Your task to perform on an android device: open a bookmark in the chrome app Image 0: 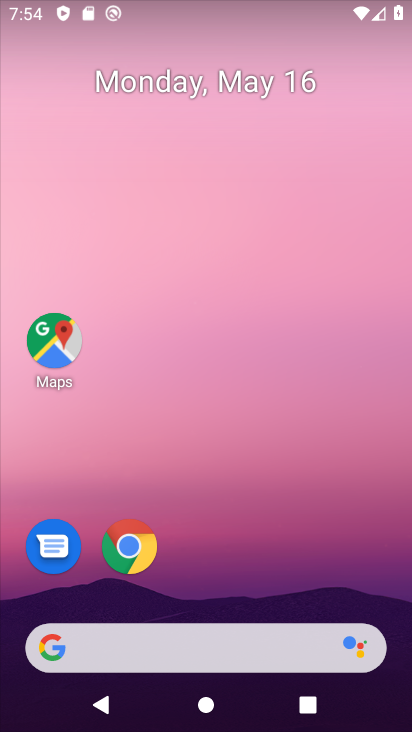
Step 0: click (160, 549)
Your task to perform on an android device: open a bookmark in the chrome app Image 1: 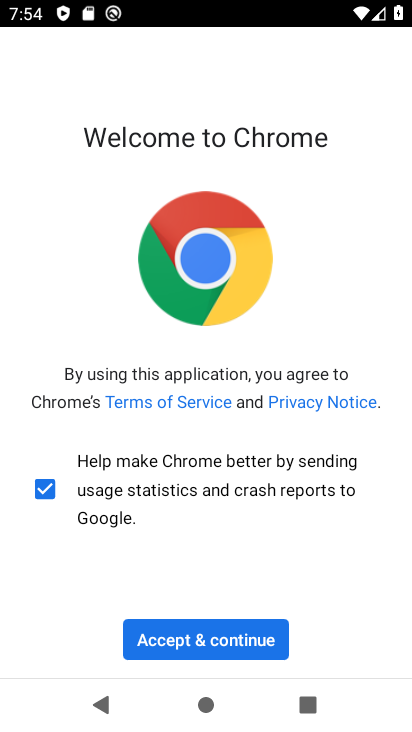
Step 1: click (234, 650)
Your task to perform on an android device: open a bookmark in the chrome app Image 2: 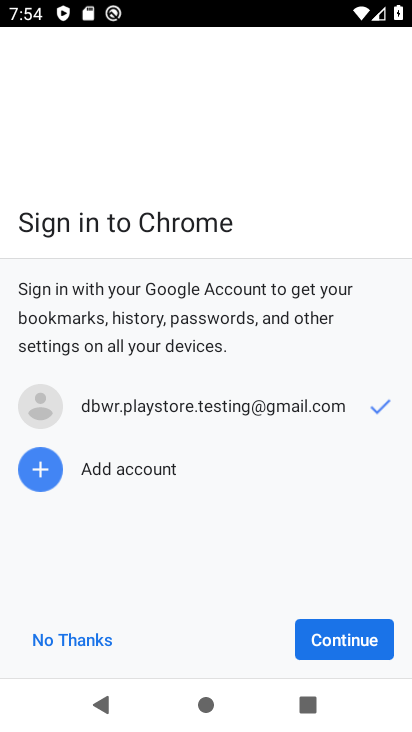
Step 2: click (305, 652)
Your task to perform on an android device: open a bookmark in the chrome app Image 3: 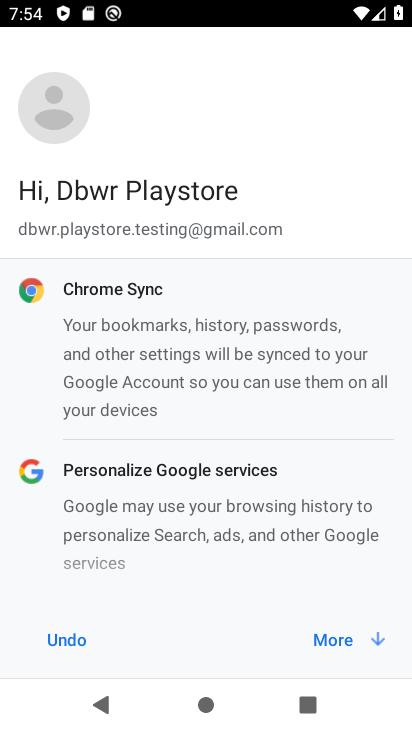
Step 3: click (332, 634)
Your task to perform on an android device: open a bookmark in the chrome app Image 4: 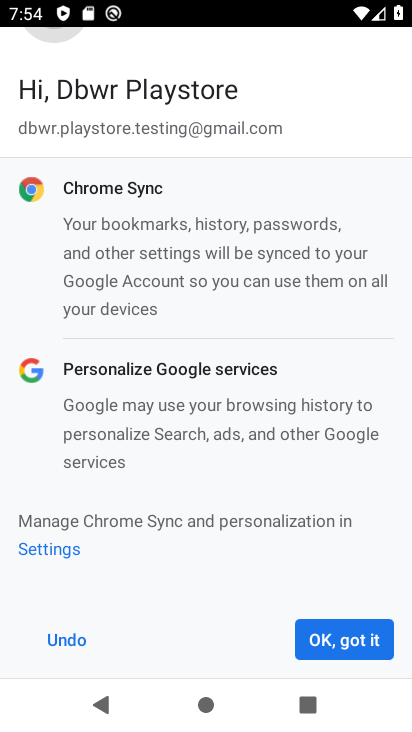
Step 4: click (332, 634)
Your task to perform on an android device: open a bookmark in the chrome app Image 5: 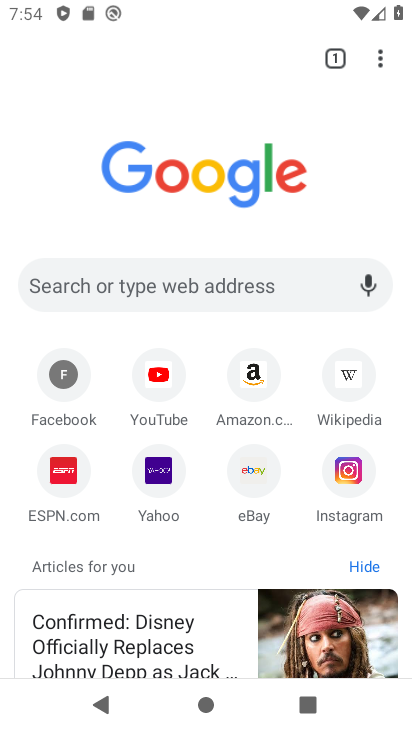
Step 5: click (381, 69)
Your task to perform on an android device: open a bookmark in the chrome app Image 6: 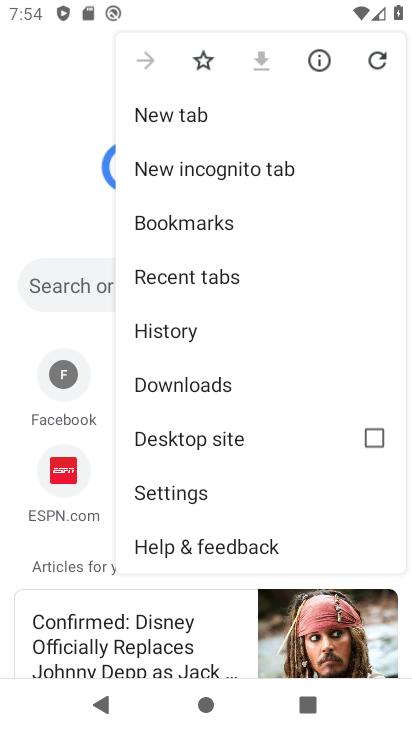
Step 6: click (287, 234)
Your task to perform on an android device: open a bookmark in the chrome app Image 7: 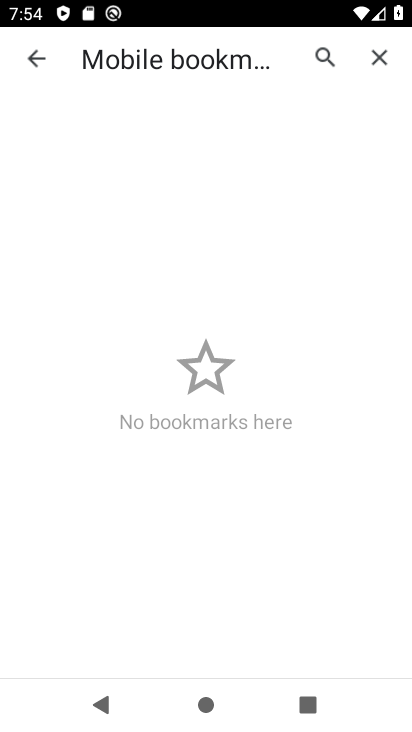
Step 7: task complete